Your task to perform on an android device: Go to internet settings Image 0: 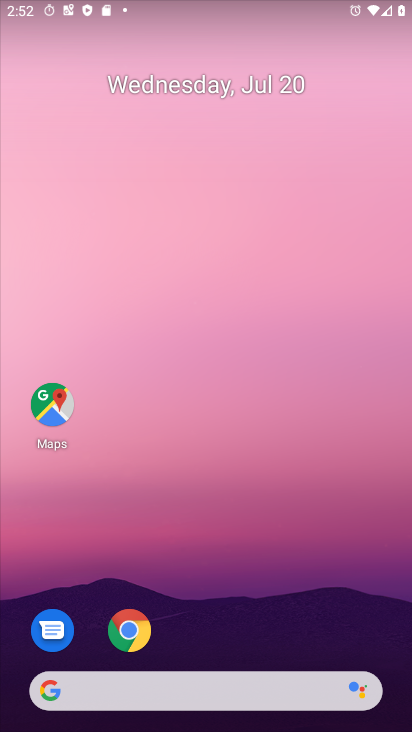
Step 0: press home button
Your task to perform on an android device: Go to internet settings Image 1: 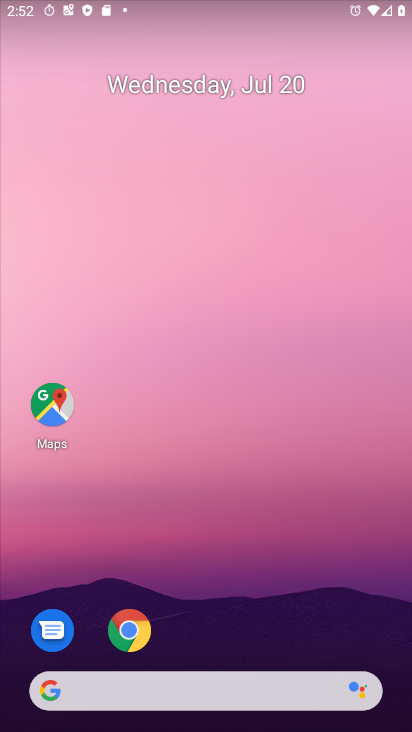
Step 1: drag from (148, 694) to (324, 79)
Your task to perform on an android device: Go to internet settings Image 2: 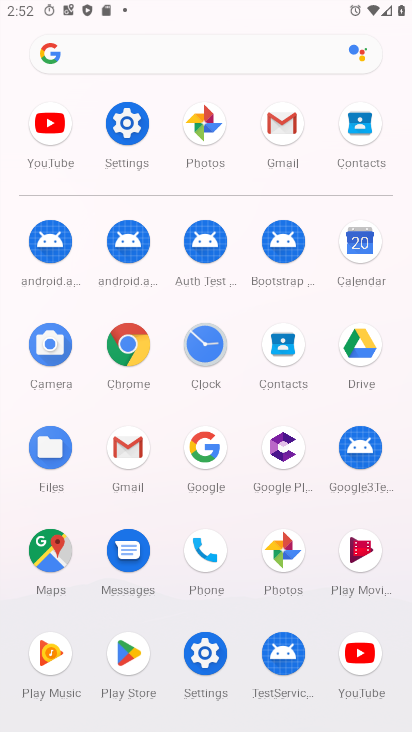
Step 2: click (135, 123)
Your task to perform on an android device: Go to internet settings Image 3: 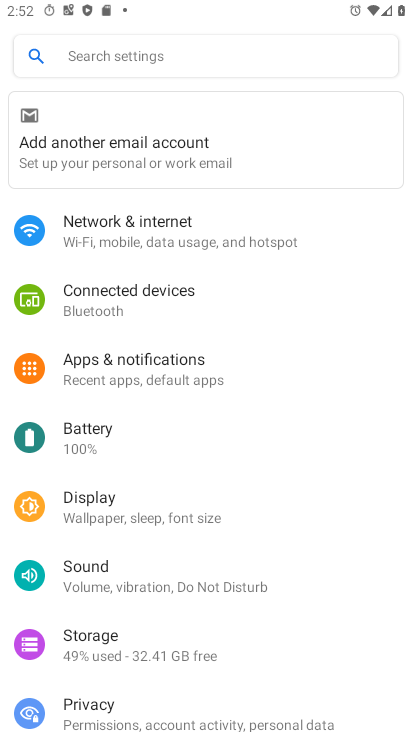
Step 3: click (139, 227)
Your task to perform on an android device: Go to internet settings Image 4: 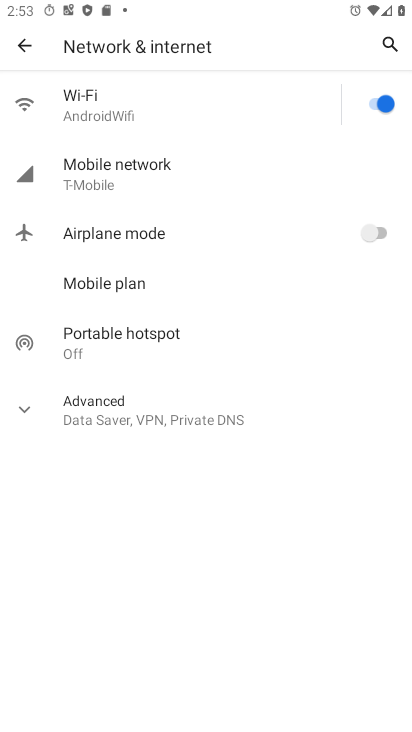
Step 4: task complete